Your task to perform on an android device: all mails in gmail Image 0: 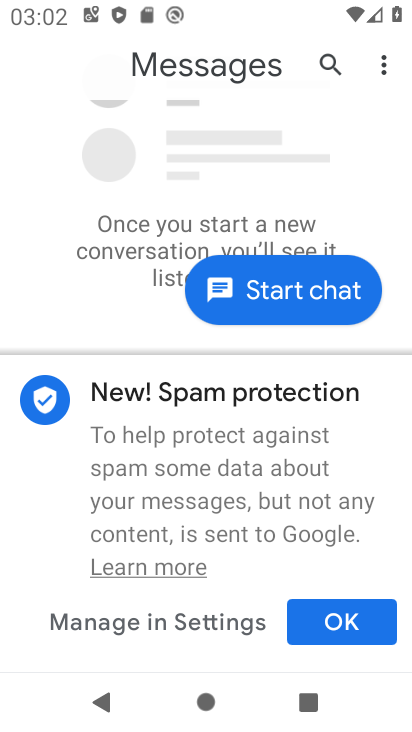
Step 0: press back button
Your task to perform on an android device: all mails in gmail Image 1: 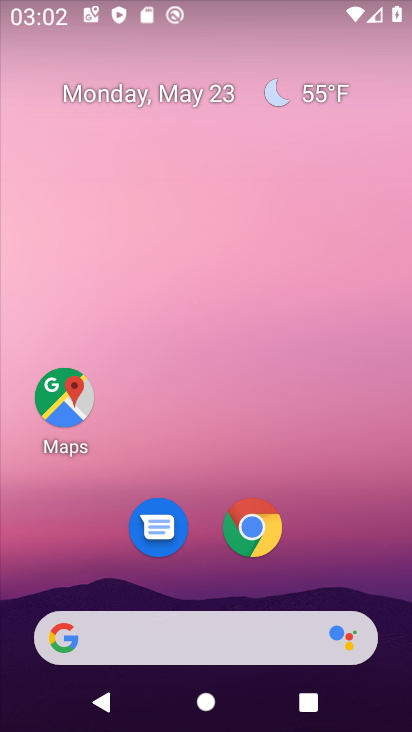
Step 1: drag from (272, 498) to (297, 1)
Your task to perform on an android device: all mails in gmail Image 2: 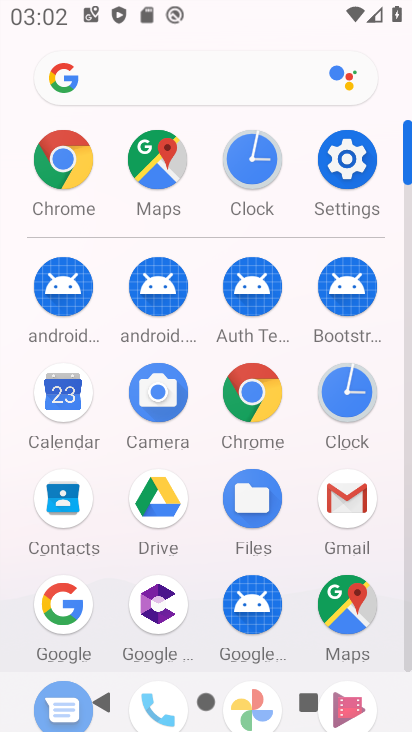
Step 2: click (343, 494)
Your task to perform on an android device: all mails in gmail Image 3: 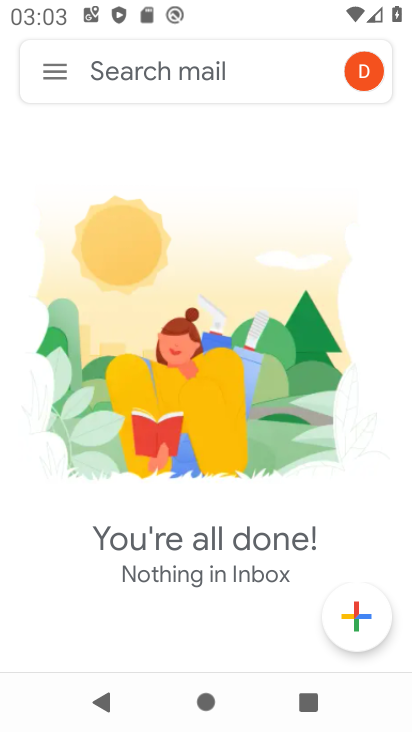
Step 3: click (51, 73)
Your task to perform on an android device: all mails in gmail Image 4: 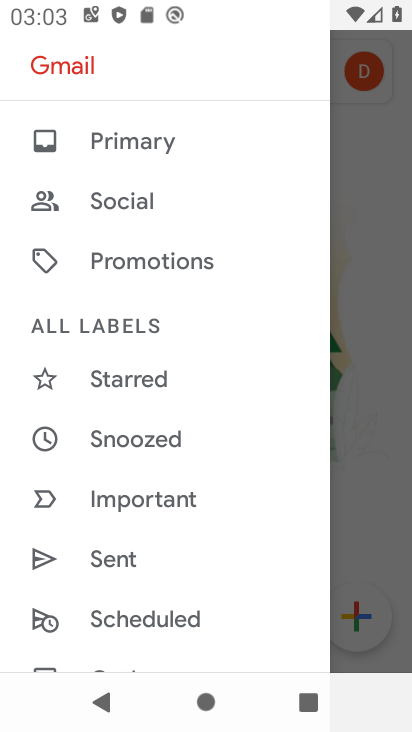
Step 4: drag from (226, 292) to (227, 664)
Your task to perform on an android device: all mails in gmail Image 5: 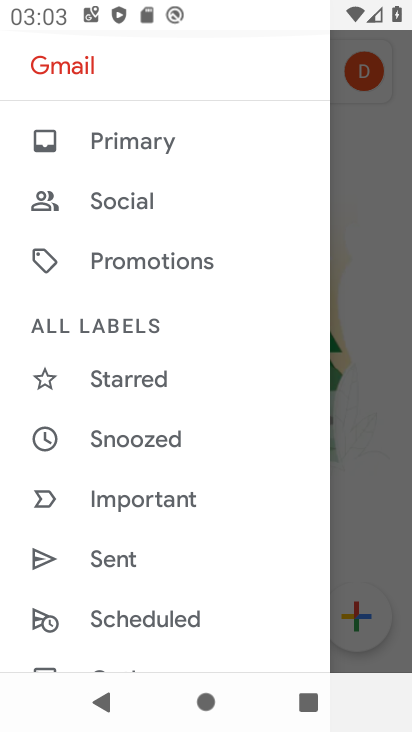
Step 5: drag from (210, 580) to (236, 170)
Your task to perform on an android device: all mails in gmail Image 6: 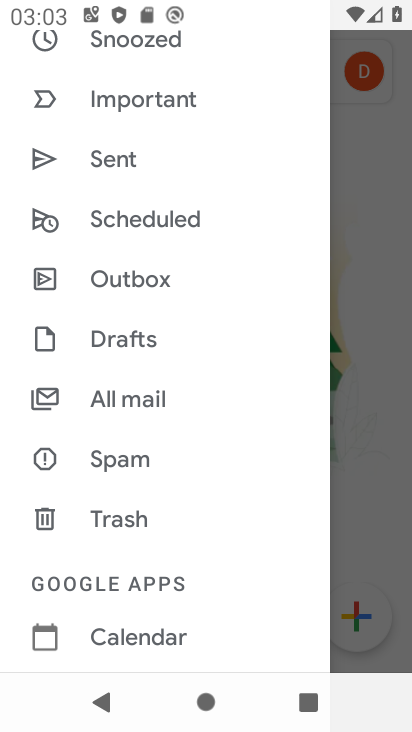
Step 6: click (142, 390)
Your task to perform on an android device: all mails in gmail Image 7: 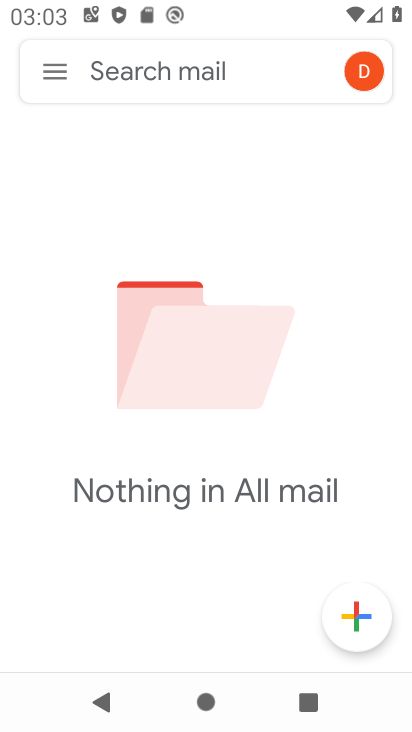
Step 7: task complete